Your task to perform on an android device: turn off location Image 0: 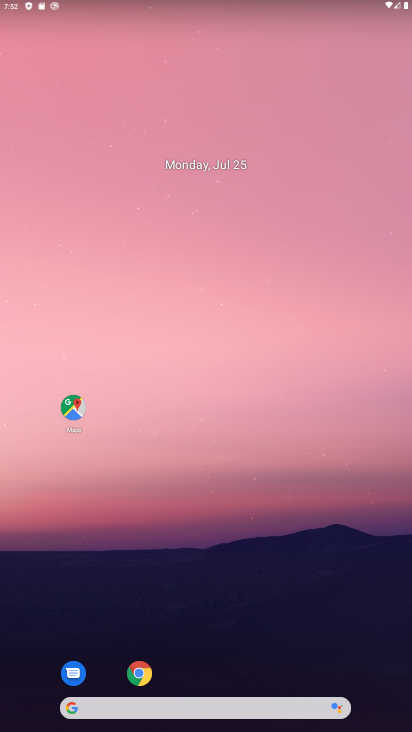
Step 0: drag from (266, 157) to (261, 90)
Your task to perform on an android device: turn off location Image 1: 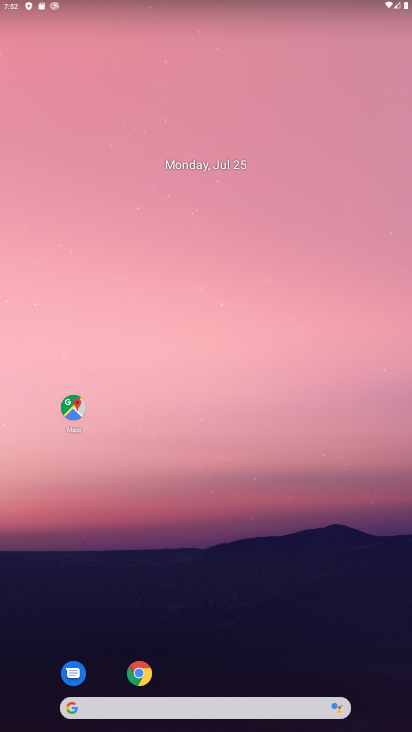
Step 1: drag from (213, 692) to (213, 162)
Your task to perform on an android device: turn off location Image 2: 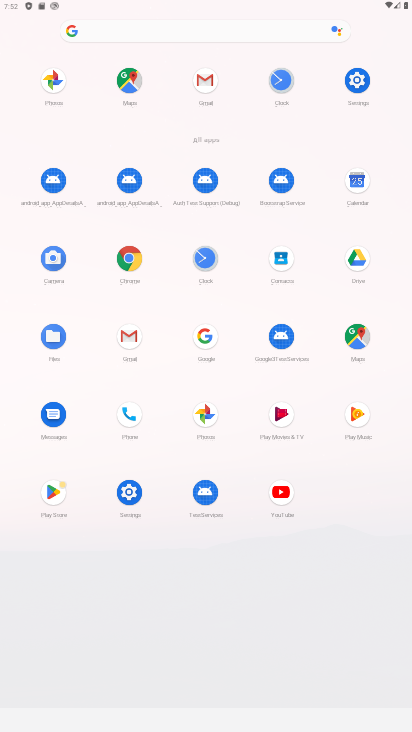
Step 2: click (357, 81)
Your task to perform on an android device: turn off location Image 3: 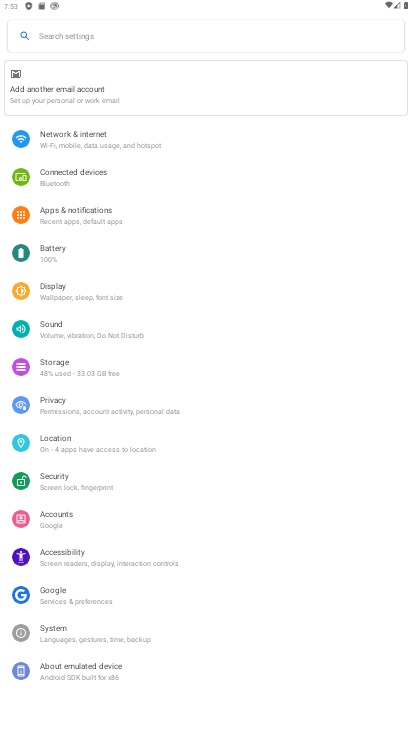
Step 3: click (96, 451)
Your task to perform on an android device: turn off location Image 4: 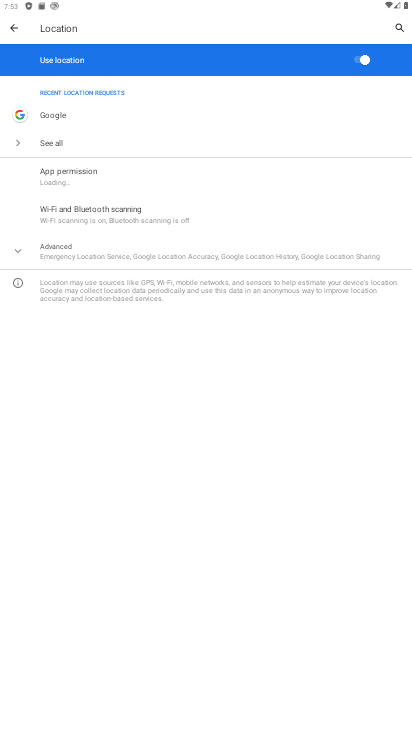
Step 4: click (352, 62)
Your task to perform on an android device: turn off location Image 5: 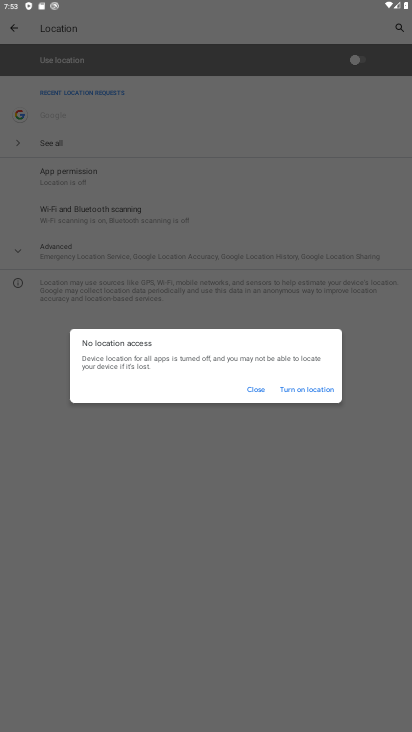
Step 5: click (256, 390)
Your task to perform on an android device: turn off location Image 6: 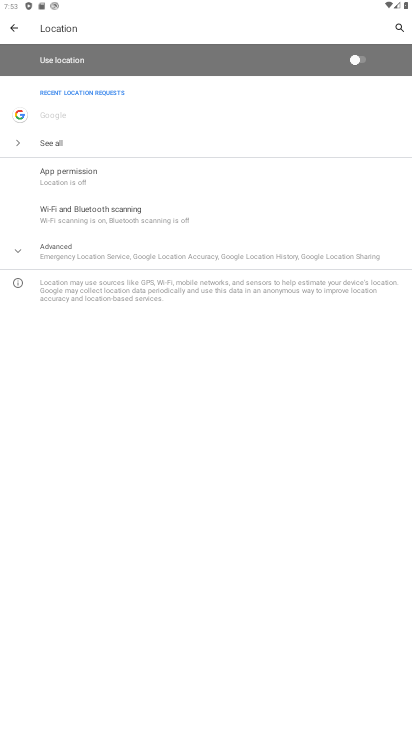
Step 6: task complete